Your task to perform on an android device: Open the SMS app Image 0: 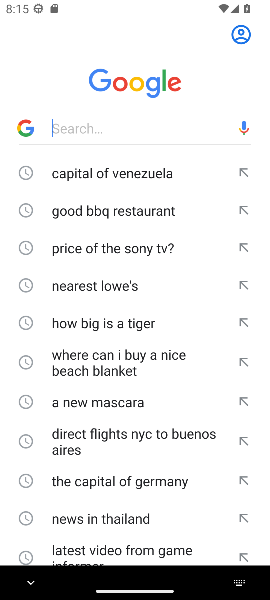
Step 0: press home button
Your task to perform on an android device: Open the SMS app Image 1: 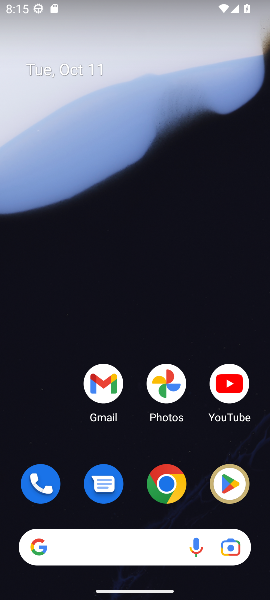
Step 1: drag from (174, 469) to (187, 126)
Your task to perform on an android device: Open the SMS app Image 2: 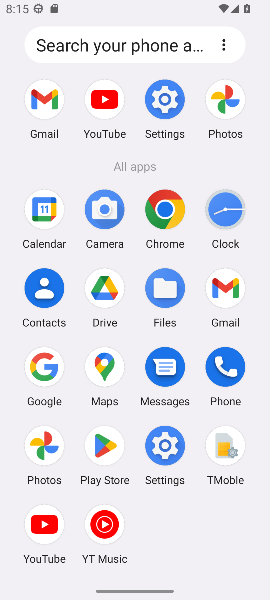
Step 2: click (166, 207)
Your task to perform on an android device: Open the SMS app Image 3: 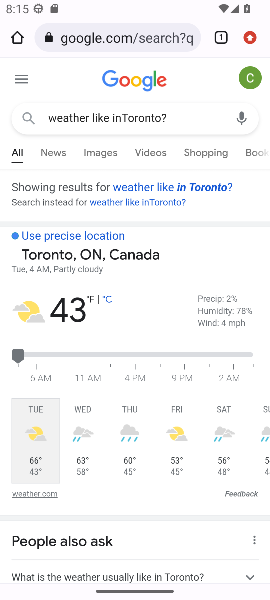
Step 3: click (148, 37)
Your task to perform on an android device: Open the SMS app Image 4: 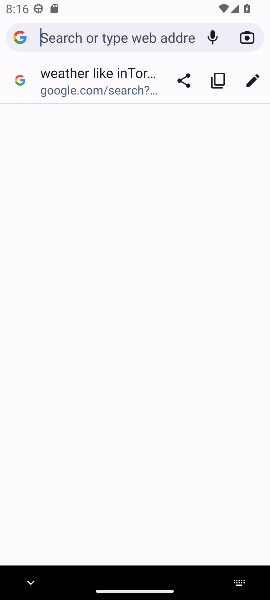
Step 4: press home button
Your task to perform on an android device: Open the SMS app Image 5: 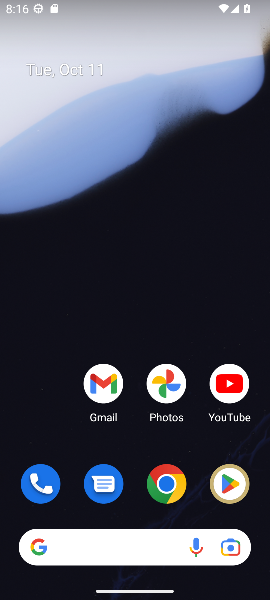
Step 5: drag from (152, 502) to (141, 75)
Your task to perform on an android device: Open the SMS app Image 6: 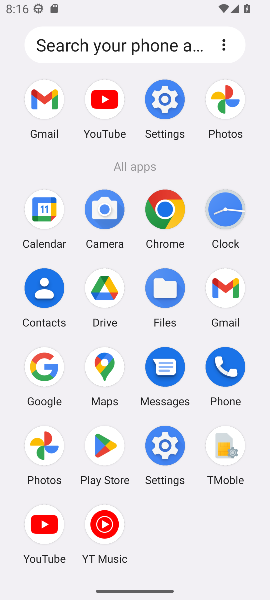
Step 6: click (165, 367)
Your task to perform on an android device: Open the SMS app Image 7: 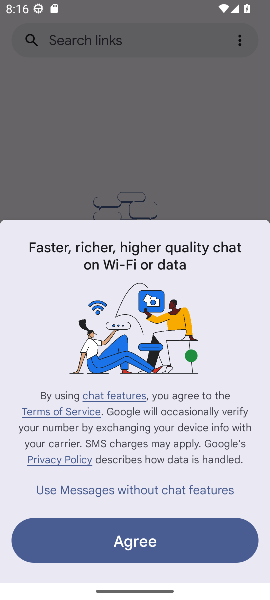
Step 7: click (154, 524)
Your task to perform on an android device: Open the SMS app Image 8: 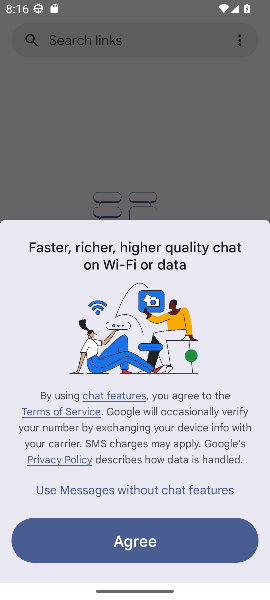
Step 8: click (154, 534)
Your task to perform on an android device: Open the SMS app Image 9: 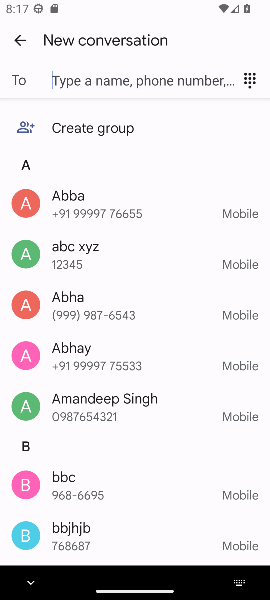
Step 9: task complete